Your task to perform on an android device: change alarm snooze length Image 0: 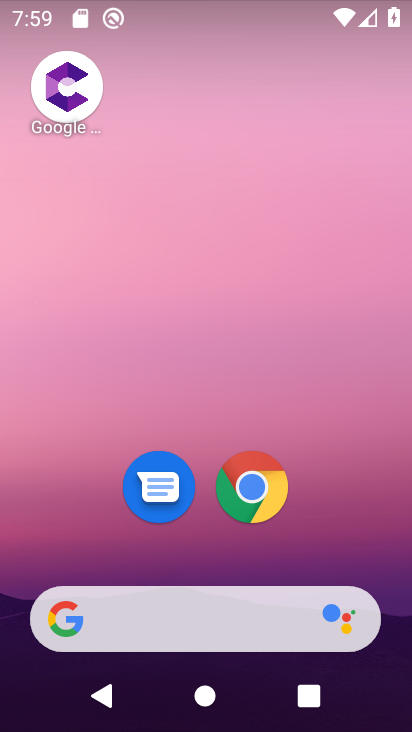
Step 0: drag from (344, 529) to (263, 14)
Your task to perform on an android device: change alarm snooze length Image 1: 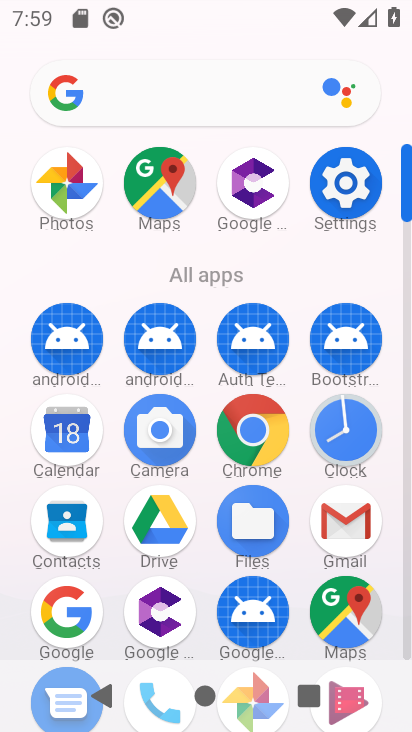
Step 1: click (348, 430)
Your task to perform on an android device: change alarm snooze length Image 2: 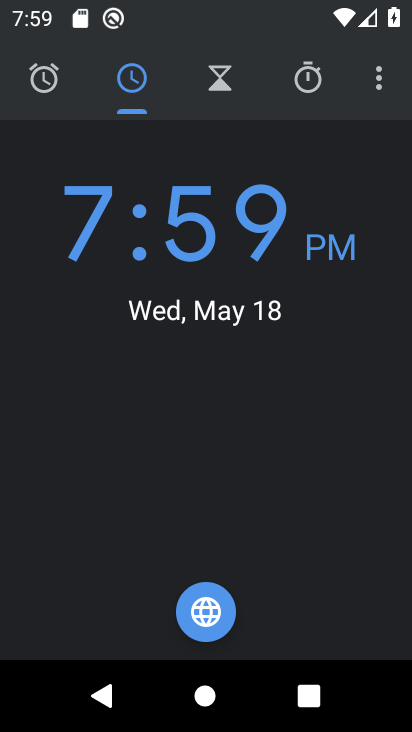
Step 2: click (378, 74)
Your task to perform on an android device: change alarm snooze length Image 3: 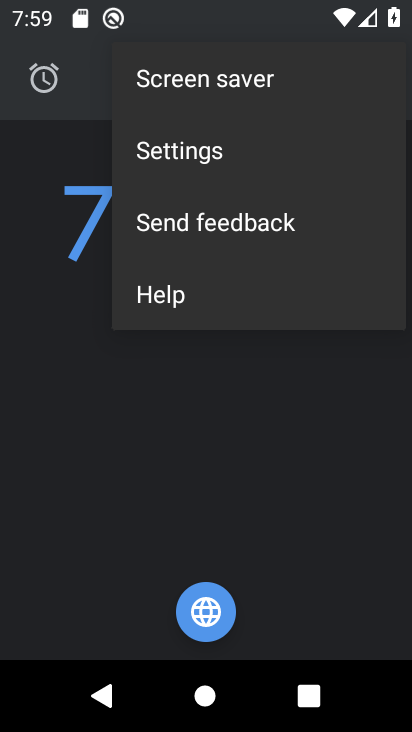
Step 3: click (199, 154)
Your task to perform on an android device: change alarm snooze length Image 4: 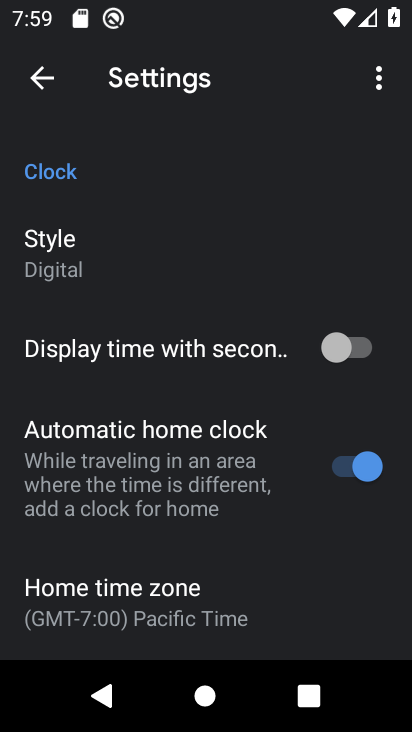
Step 4: drag from (160, 544) to (216, 411)
Your task to perform on an android device: change alarm snooze length Image 5: 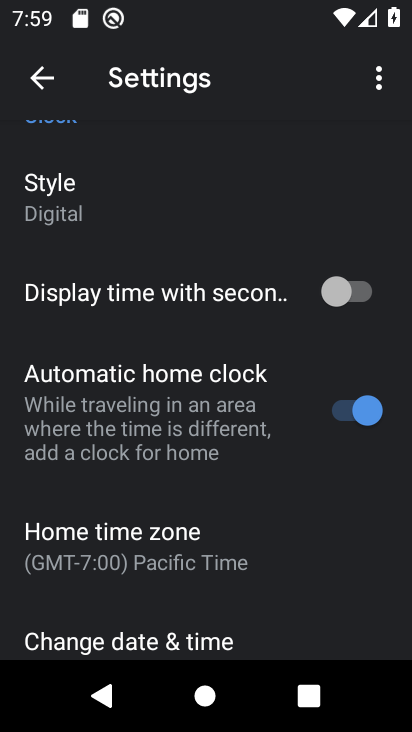
Step 5: drag from (255, 598) to (231, 417)
Your task to perform on an android device: change alarm snooze length Image 6: 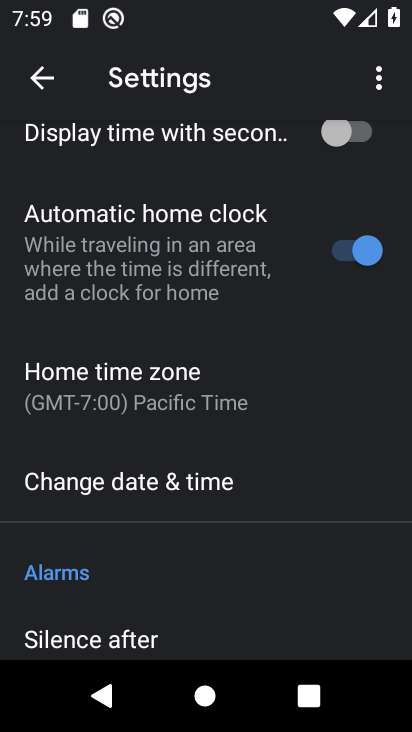
Step 6: drag from (182, 567) to (218, 366)
Your task to perform on an android device: change alarm snooze length Image 7: 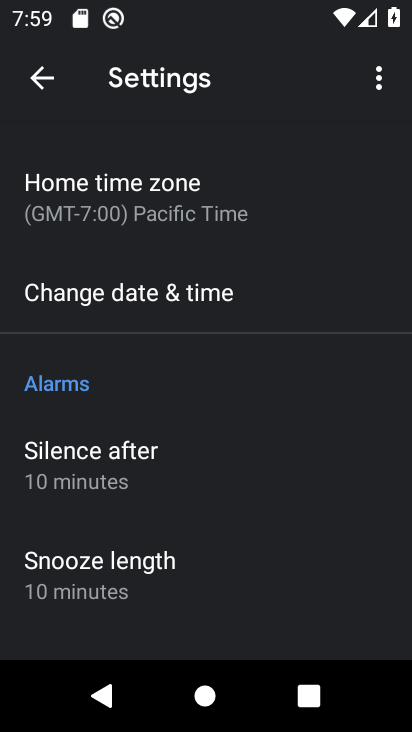
Step 7: click (108, 578)
Your task to perform on an android device: change alarm snooze length Image 8: 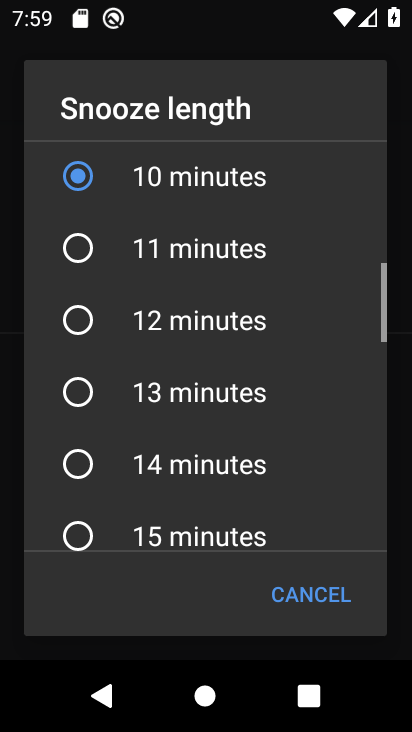
Step 8: drag from (170, 239) to (143, 503)
Your task to perform on an android device: change alarm snooze length Image 9: 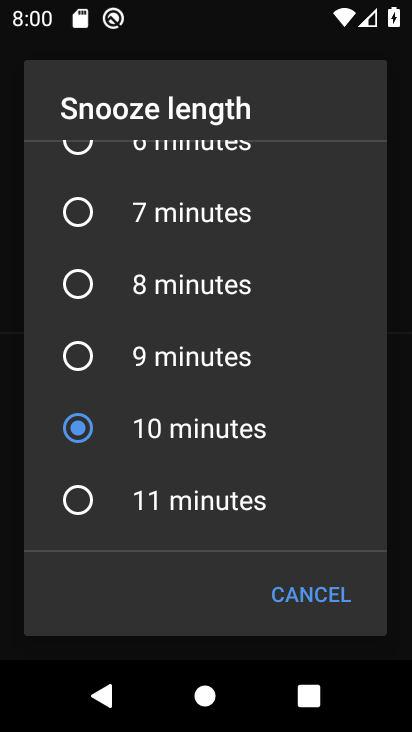
Step 9: drag from (175, 252) to (201, 485)
Your task to perform on an android device: change alarm snooze length Image 10: 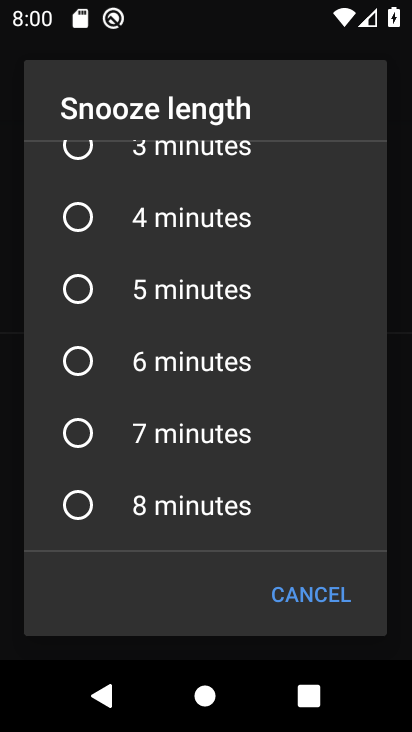
Step 10: click (81, 216)
Your task to perform on an android device: change alarm snooze length Image 11: 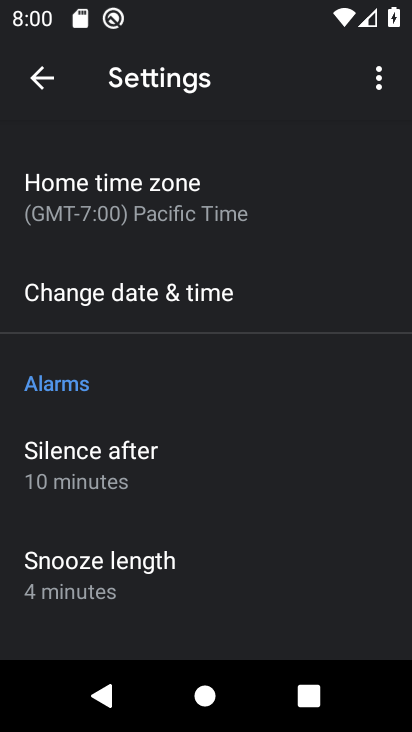
Step 11: task complete